Your task to perform on an android device: turn notification dots on Image 0: 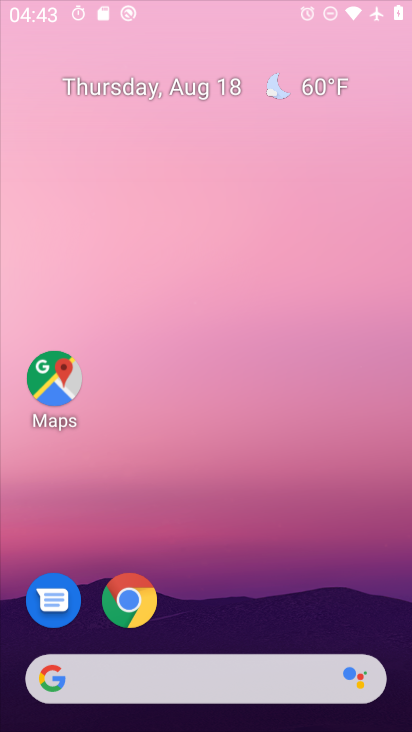
Step 0: press home button
Your task to perform on an android device: turn notification dots on Image 1: 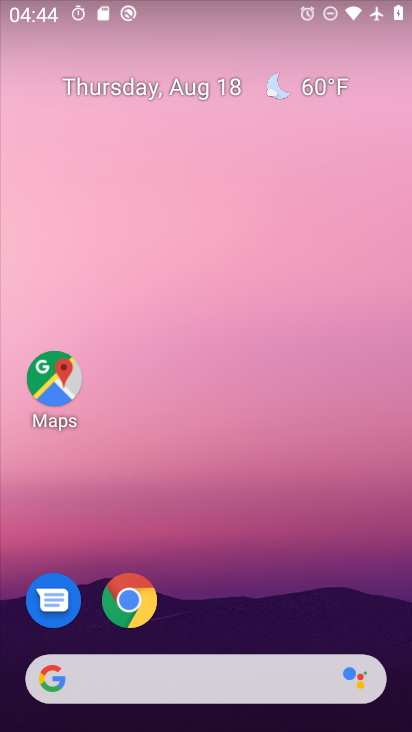
Step 1: drag from (238, 630) to (293, 1)
Your task to perform on an android device: turn notification dots on Image 2: 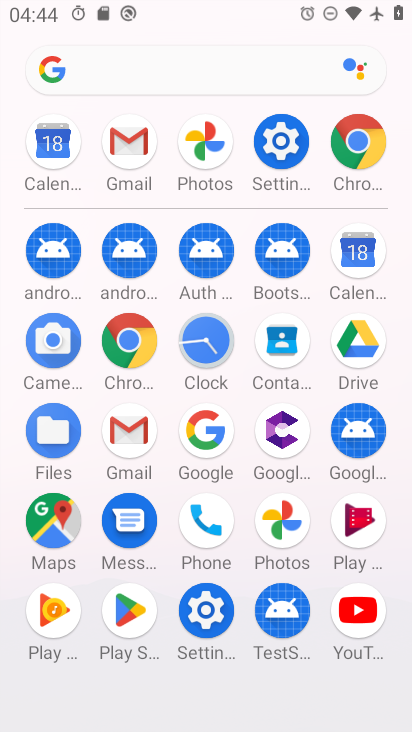
Step 2: click (280, 136)
Your task to perform on an android device: turn notification dots on Image 3: 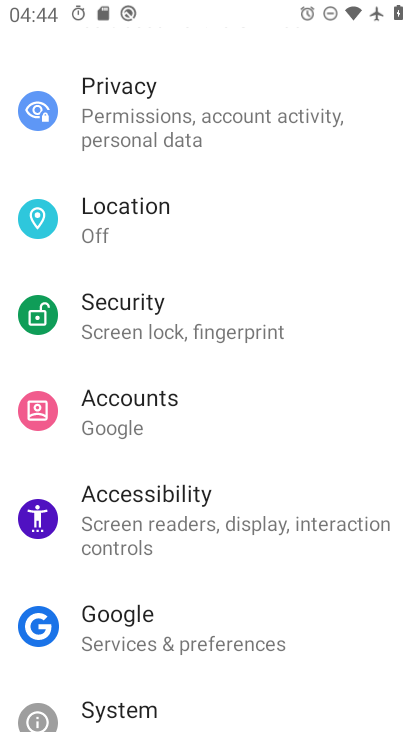
Step 3: drag from (271, 203) to (361, 725)
Your task to perform on an android device: turn notification dots on Image 4: 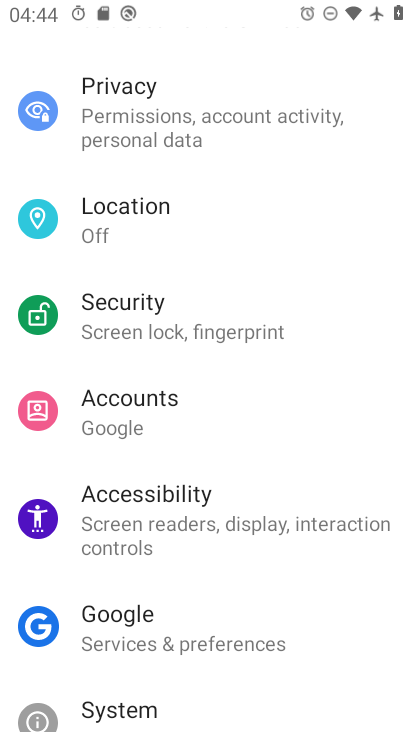
Step 4: drag from (235, 156) to (297, 727)
Your task to perform on an android device: turn notification dots on Image 5: 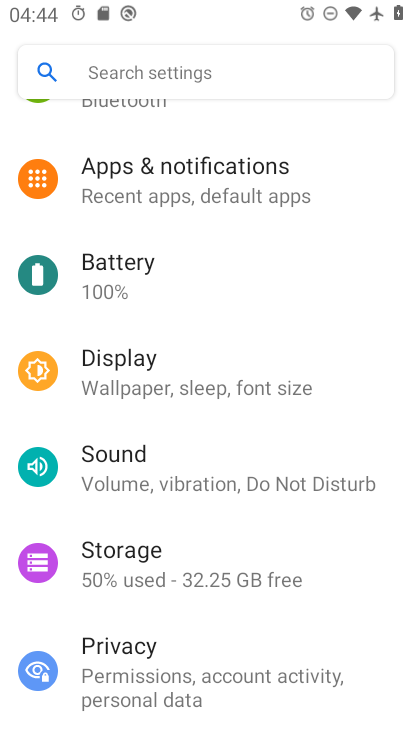
Step 5: click (186, 173)
Your task to perform on an android device: turn notification dots on Image 6: 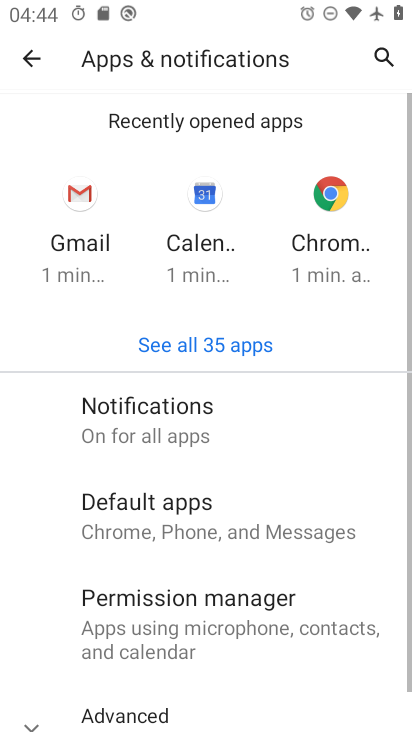
Step 6: click (151, 420)
Your task to perform on an android device: turn notification dots on Image 7: 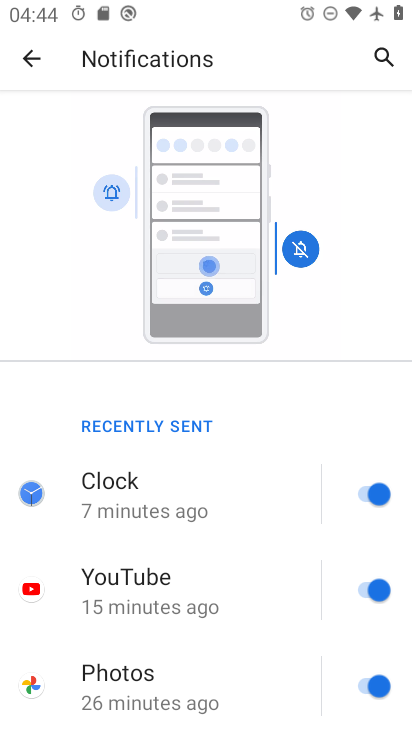
Step 7: drag from (276, 664) to (239, 123)
Your task to perform on an android device: turn notification dots on Image 8: 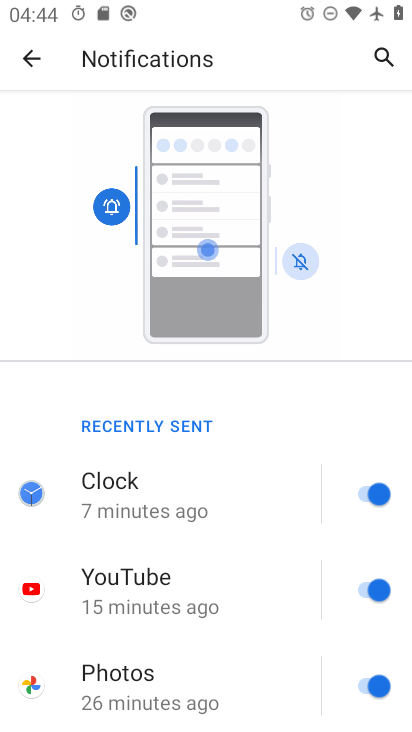
Step 8: drag from (265, 562) to (265, 0)
Your task to perform on an android device: turn notification dots on Image 9: 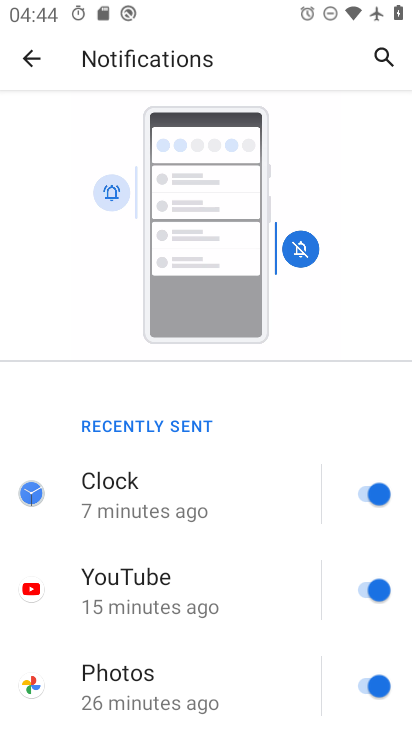
Step 9: drag from (265, 558) to (262, 2)
Your task to perform on an android device: turn notification dots on Image 10: 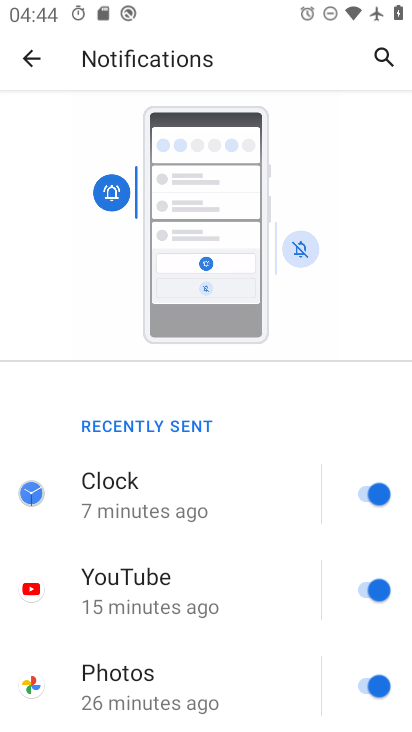
Step 10: drag from (265, 671) to (297, 75)
Your task to perform on an android device: turn notification dots on Image 11: 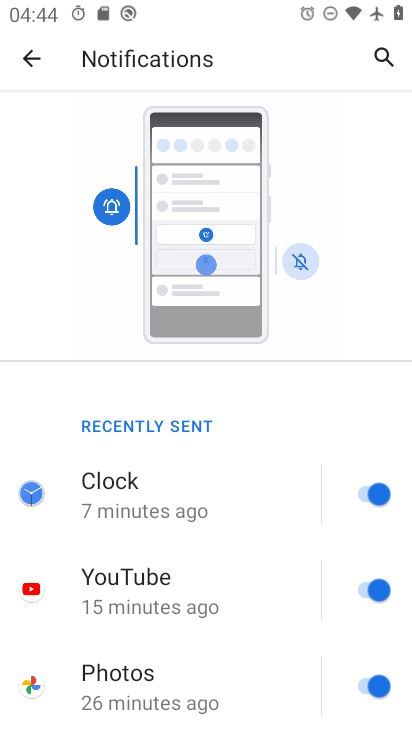
Step 11: drag from (255, 495) to (311, 21)
Your task to perform on an android device: turn notification dots on Image 12: 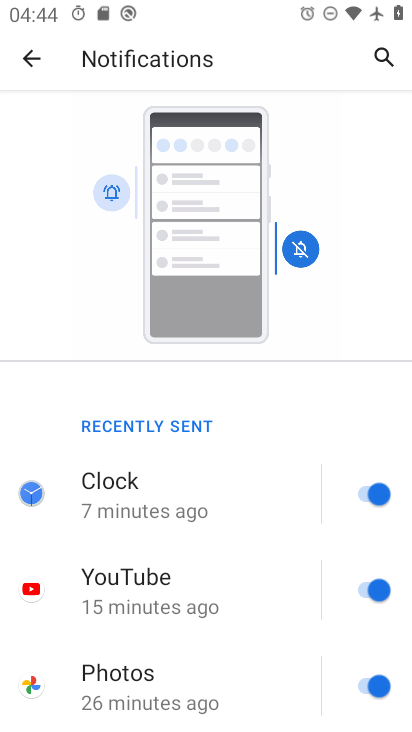
Step 12: drag from (301, 660) to (327, 46)
Your task to perform on an android device: turn notification dots on Image 13: 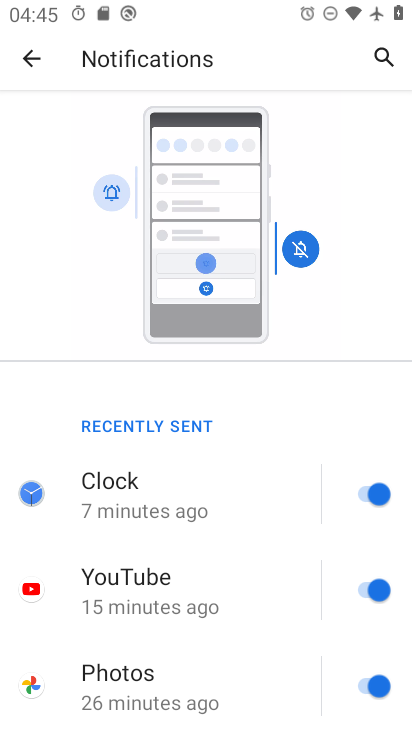
Step 13: drag from (304, 699) to (299, 118)
Your task to perform on an android device: turn notification dots on Image 14: 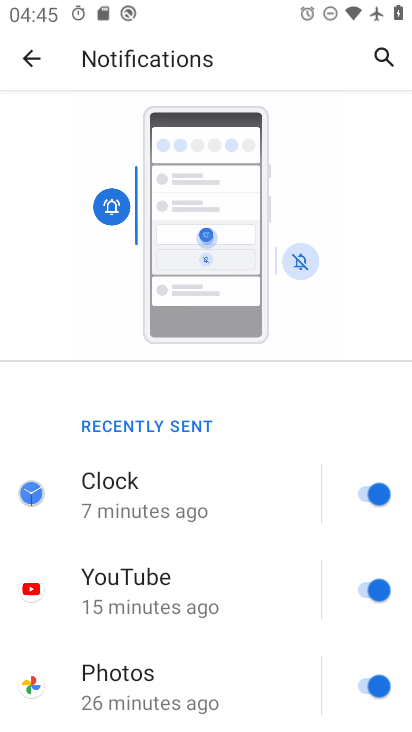
Step 14: drag from (299, 694) to (352, 13)
Your task to perform on an android device: turn notification dots on Image 15: 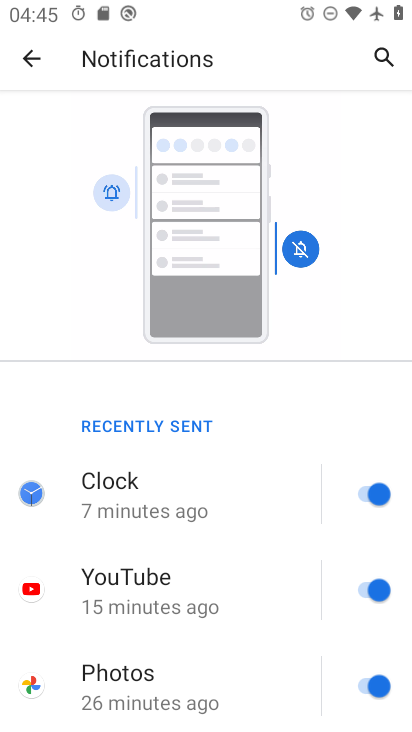
Step 15: drag from (310, 677) to (331, 74)
Your task to perform on an android device: turn notification dots on Image 16: 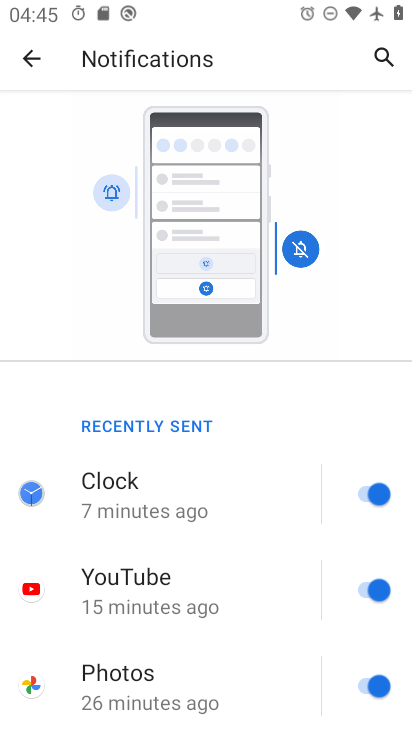
Step 16: drag from (321, 665) to (318, 8)
Your task to perform on an android device: turn notification dots on Image 17: 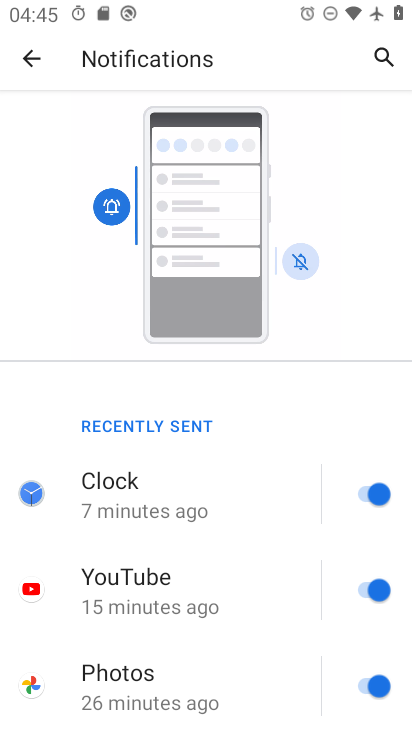
Step 17: drag from (250, 634) to (311, 21)
Your task to perform on an android device: turn notification dots on Image 18: 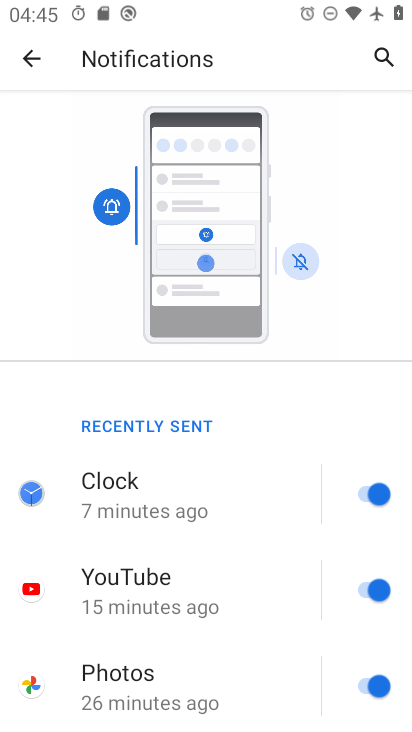
Step 18: drag from (199, 650) to (243, 13)
Your task to perform on an android device: turn notification dots on Image 19: 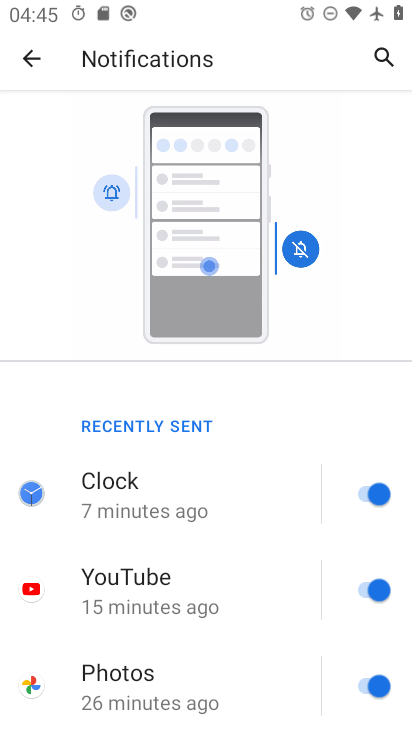
Step 19: drag from (166, 657) to (194, 29)
Your task to perform on an android device: turn notification dots on Image 20: 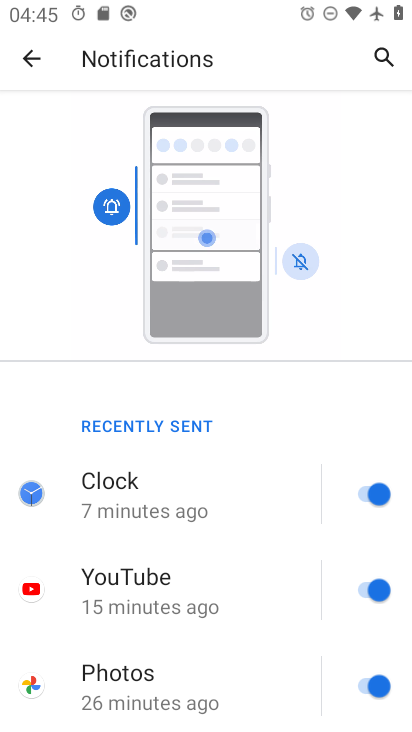
Step 20: drag from (207, 656) to (244, 50)
Your task to perform on an android device: turn notification dots on Image 21: 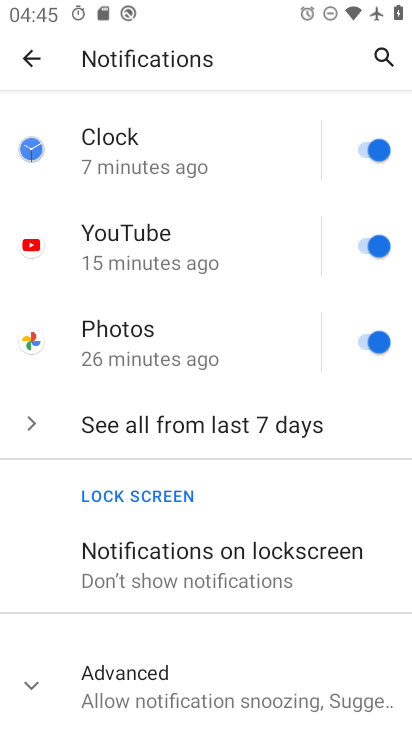
Step 21: click (145, 699)
Your task to perform on an android device: turn notification dots on Image 22: 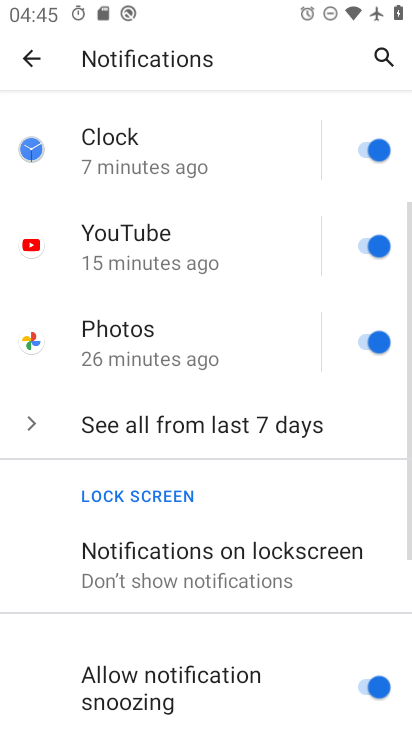
Step 22: task complete